Your task to perform on an android device: open a new tab in the chrome app Image 0: 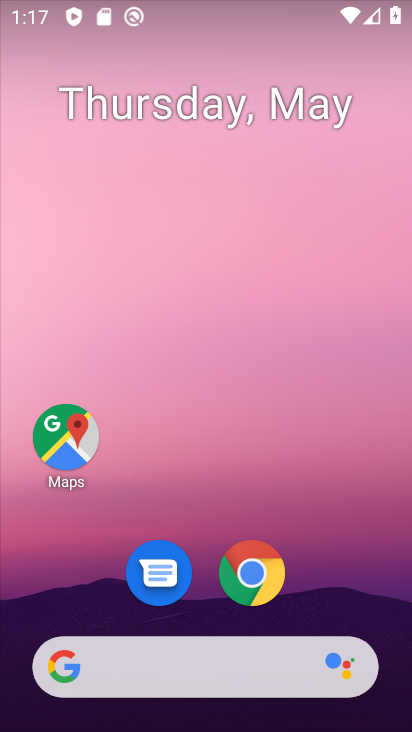
Step 0: click (261, 579)
Your task to perform on an android device: open a new tab in the chrome app Image 1: 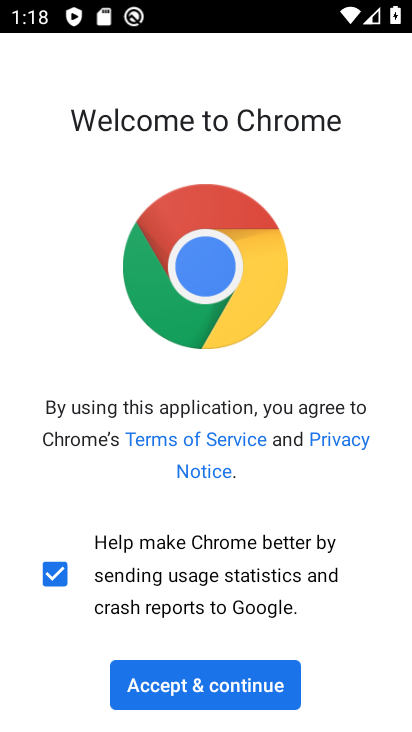
Step 1: click (263, 685)
Your task to perform on an android device: open a new tab in the chrome app Image 2: 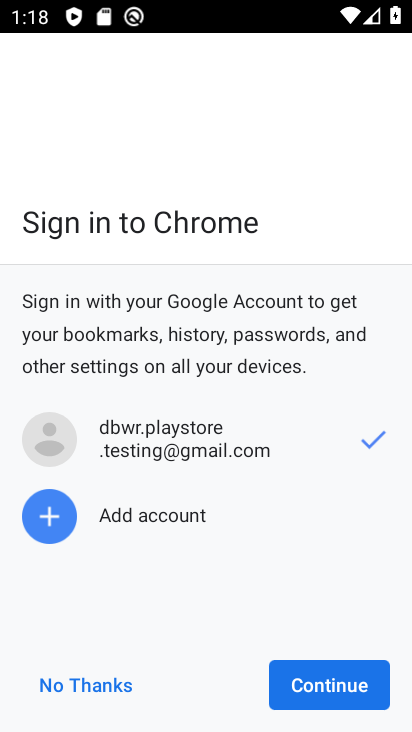
Step 2: click (330, 673)
Your task to perform on an android device: open a new tab in the chrome app Image 3: 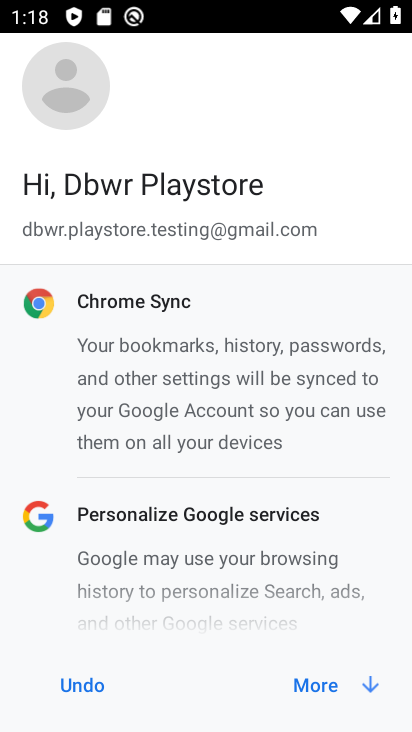
Step 3: click (330, 673)
Your task to perform on an android device: open a new tab in the chrome app Image 4: 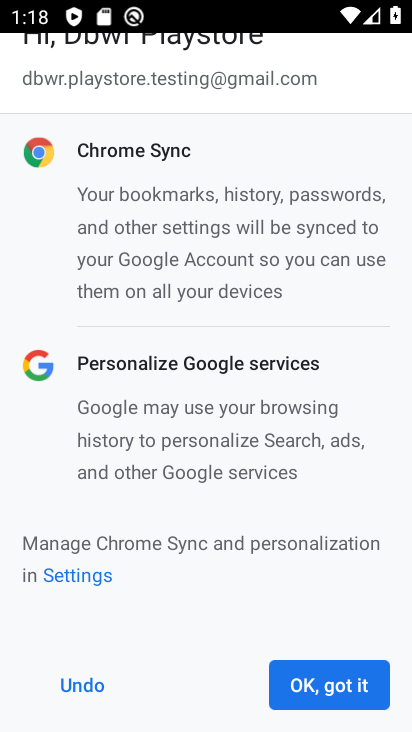
Step 4: click (330, 673)
Your task to perform on an android device: open a new tab in the chrome app Image 5: 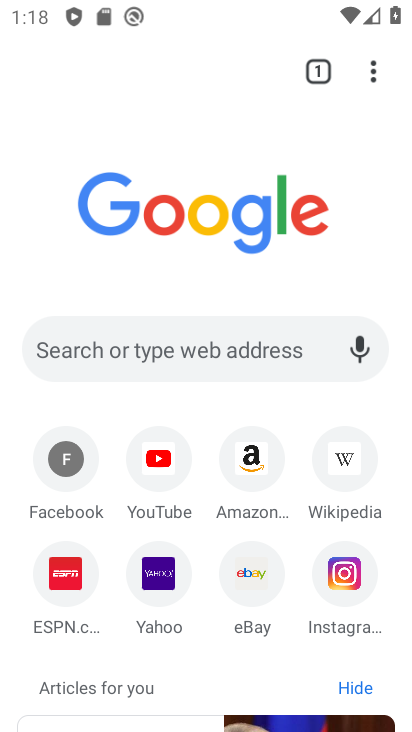
Step 5: click (370, 73)
Your task to perform on an android device: open a new tab in the chrome app Image 6: 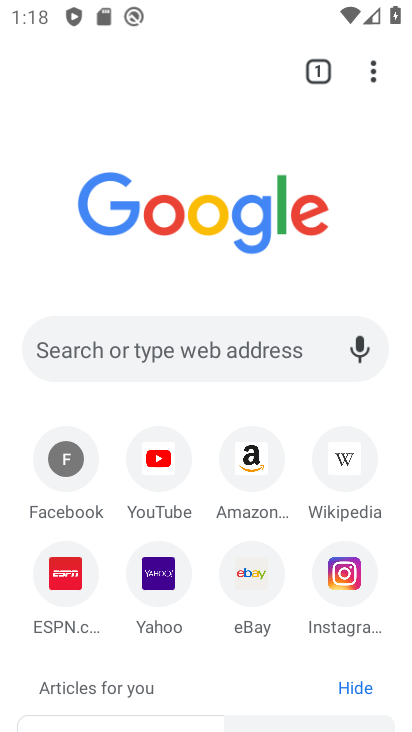
Step 6: click (365, 69)
Your task to perform on an android device: open a new tab in the chrome app Image 7: 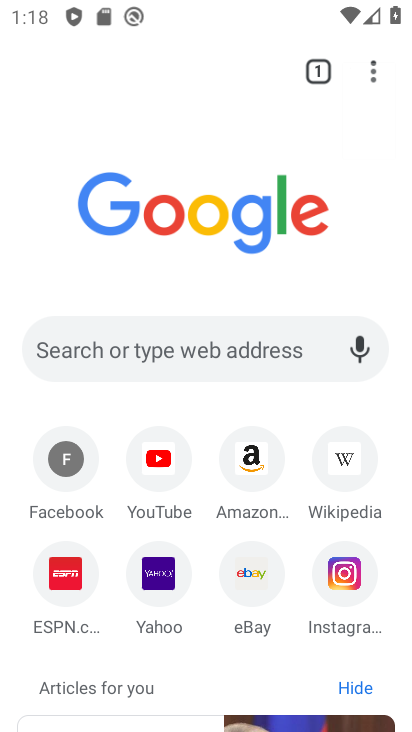
Step 7: click (365, 69)
Your task to perform on an android device: open a new tab in the chrome app Image 8: 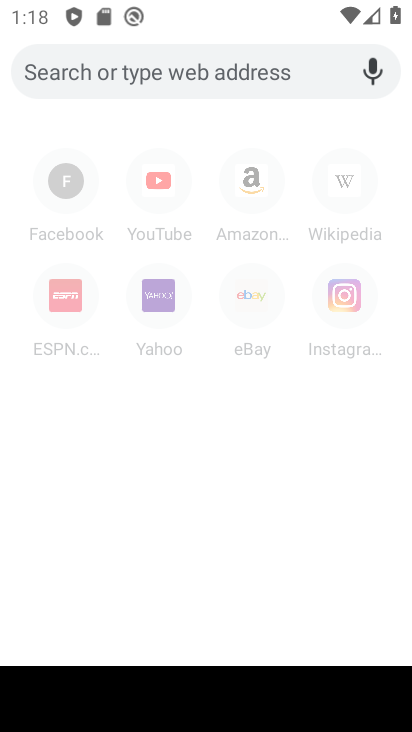
Step 8: task complete